Your task to perform on an android device: Show me recent news Image 0: 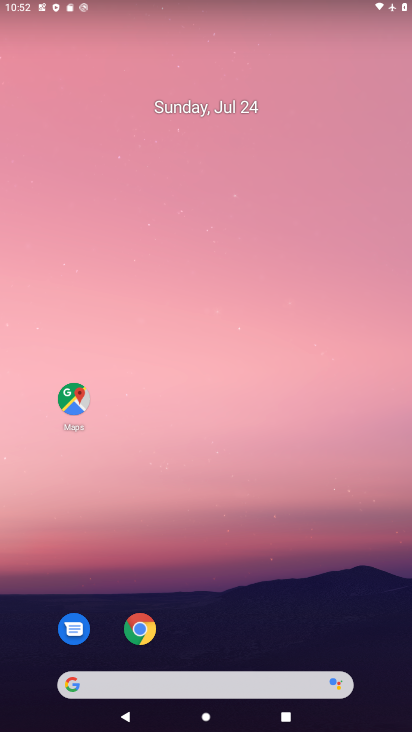
Step 0: click (212, 684)
Your task to perform on an android device: Show me recent news Image 1: 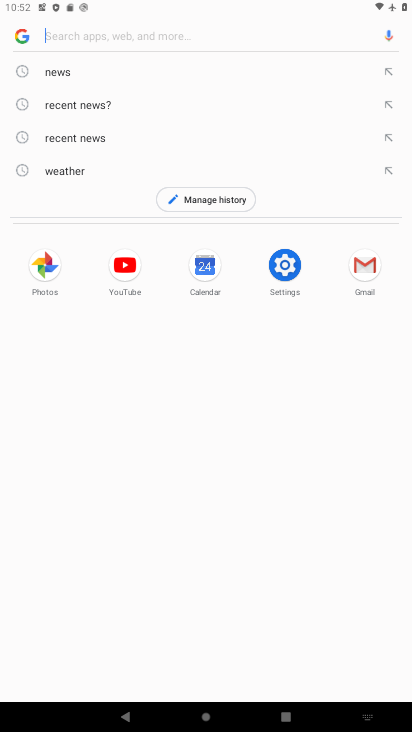
Step 1: click (147, 102)
Your task to perform on an android device: Show me recent news Image 2: 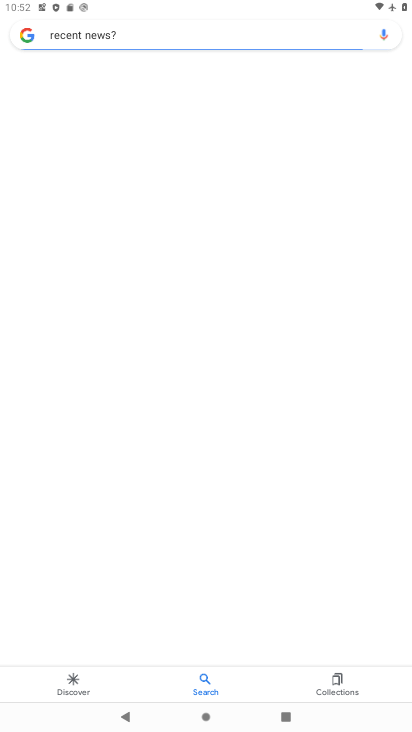
Step 2: task complete